Your task to perform on an android device: toggle airplane mode Image 0: 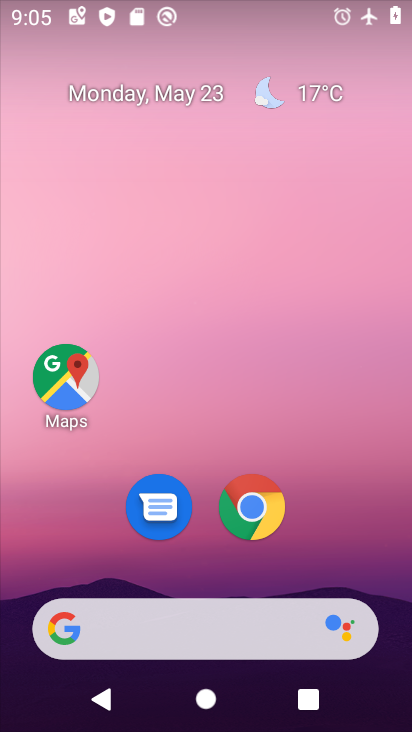
Step 0: drag from (364, 585) to (319, 28)
Your task to perform on an android device: toggle airplane mode Image 1: 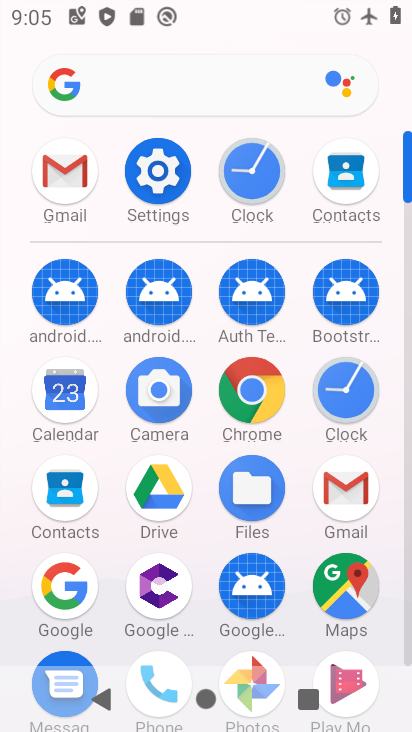
Step 1: click (171, 184)
Your task to perform on an android device: toggle airplane mode Image 2: 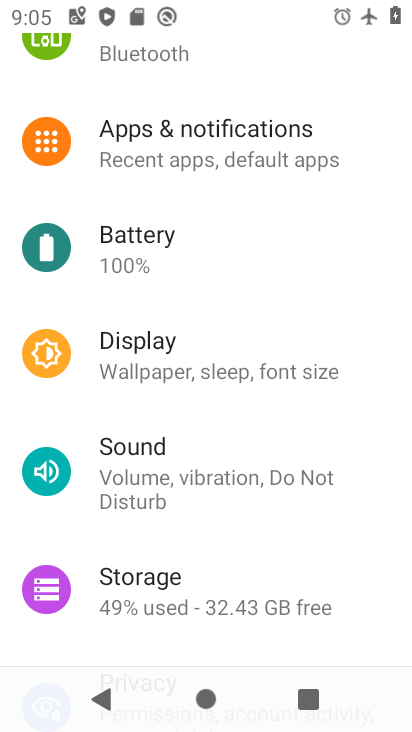
Step 2: drag from (324, 115) to (298, 711)
Your task to perform on an android device: toggle airplane mode Image 3: 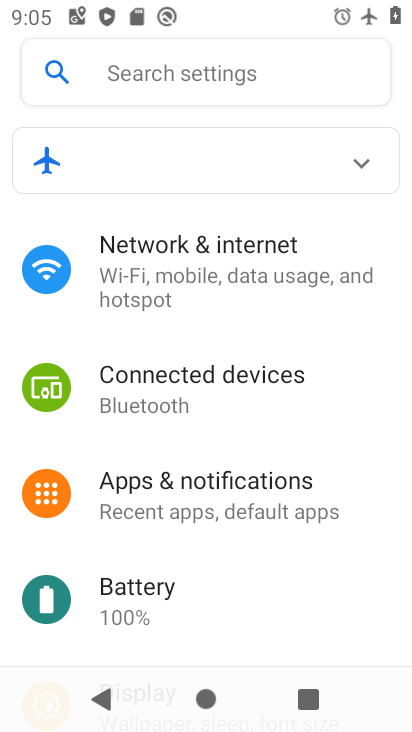
Step 3: click (163, 288)
Your task to perform on an android device: toggle airplane mode Image 4: 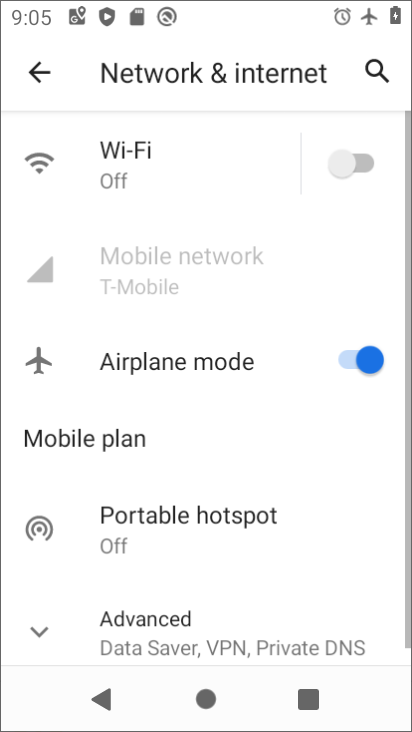
Step 4: click (349, 360)
Your task to perform on an android device: toggle airplane mode Image 5: 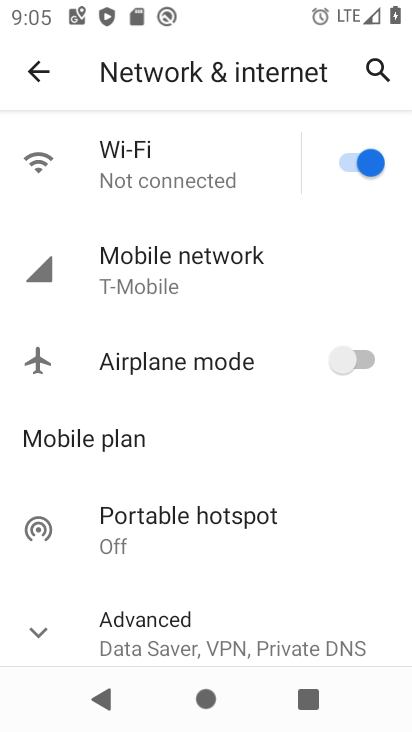
Step 5: task complete